Your task to perform on an android device: Search for sushi restaurants on Maps Image 0: 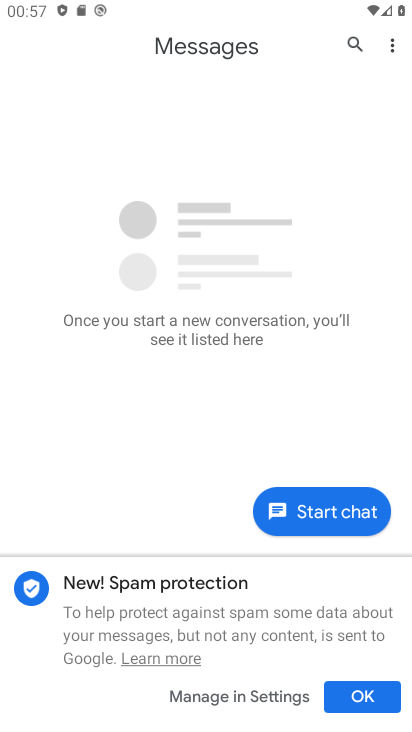
Step 0: press home button
Your task to perform on an android device: Search for sushi restaurants on Maps Image 1: 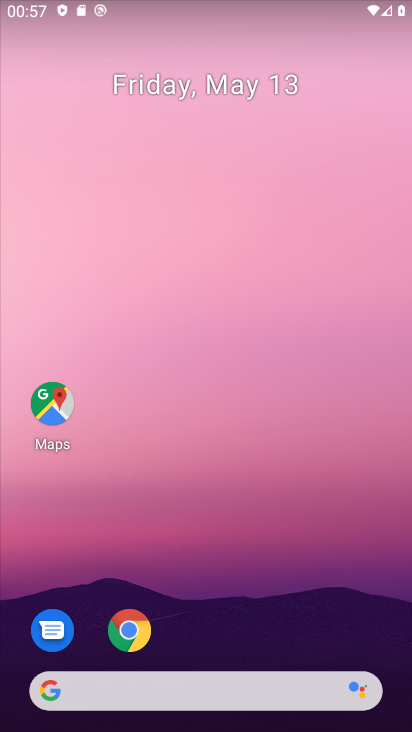
Step 1: drag from (209, 713) to (370, 221)
Your task to perform on an android device: Search for sushi restaurants on Maps Image 2: 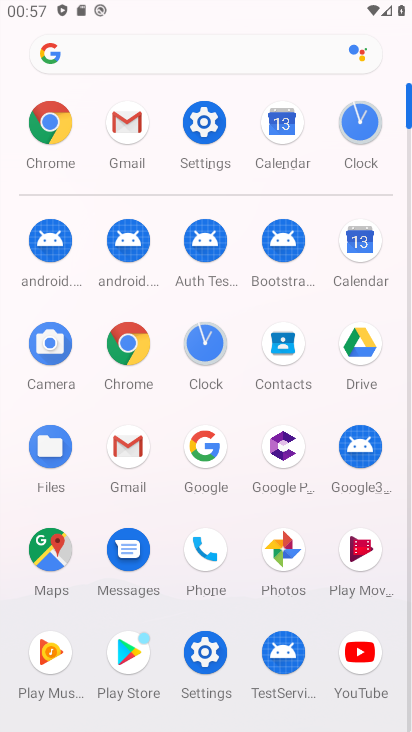
Step 2: click (56, 530)
Your task to perform on an android device: Search for sushi restaurants on Maps Image 3: 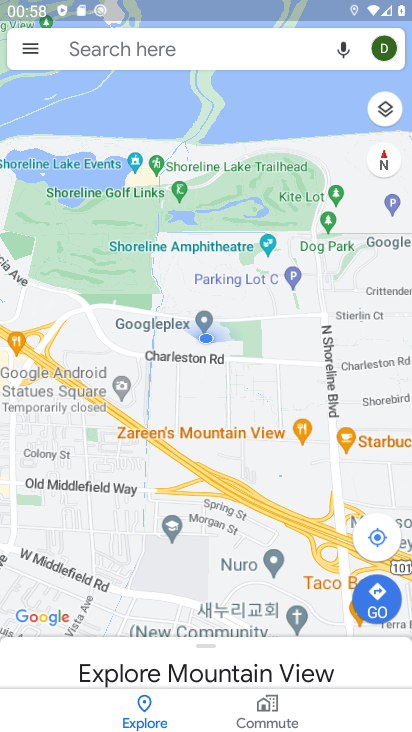
Step 3: click (117, 56)
Your task to perform on an android device: Search for sushi restaurants on Maps Image 4: 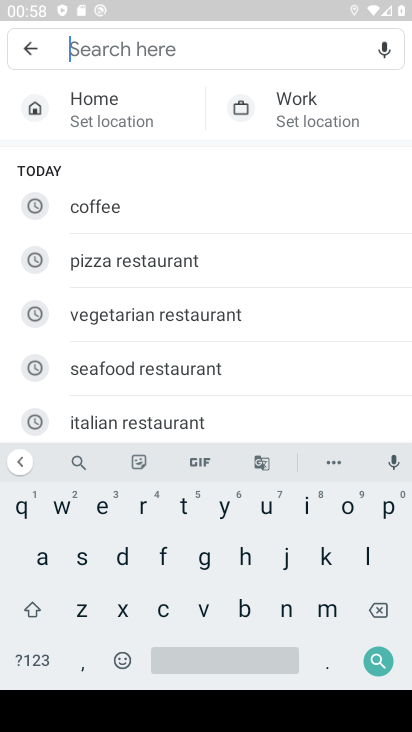
Step 4: click (77, 560)
Your task to perform on an android device: Search for sushi restaurants on Maps Image 5: 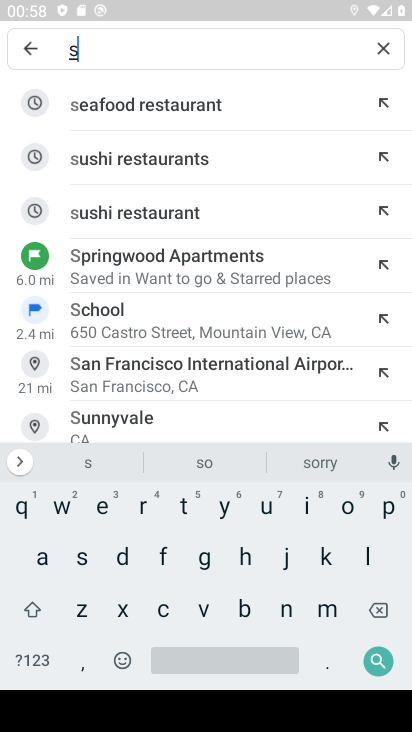
Step 5: click (108, 211)
Your task to perform on an android device: Search for sushi restaurants on Maps Image 6: 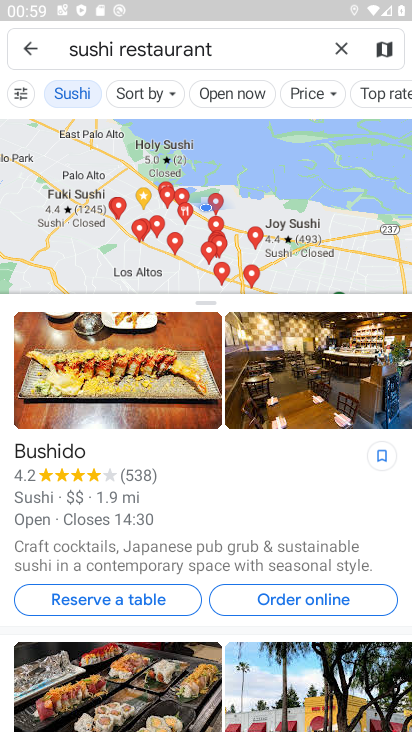
Step 6: click (131, 194)
Your task to perform on an android device: Search for sushi restaurants on Maps Image 7: 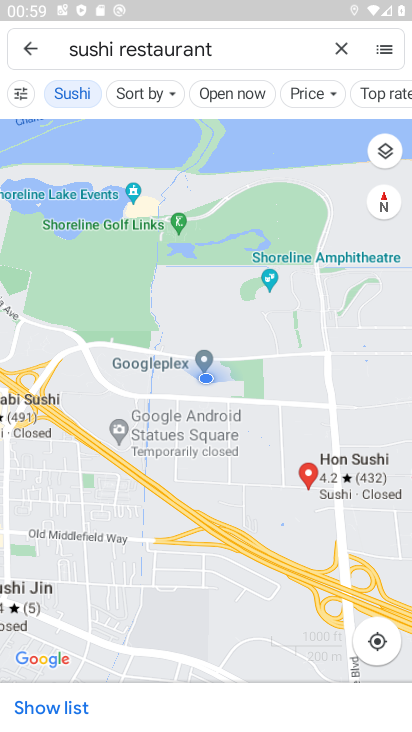
Step 7: task complete